Your task to perform on an android device: Show me recent news Image 0: 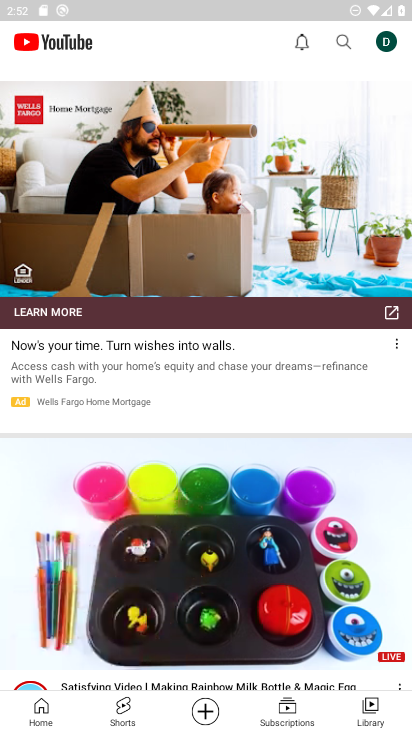
Step 0: press home button
Your task to perform on an android device: Show me recent news Image 1: 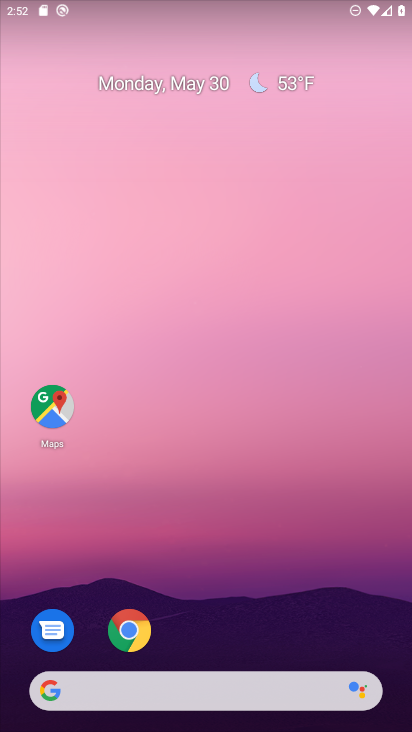
Step 1: task complete